Your task to perform on an android device: toggle pop-ups in chrome Image 0: 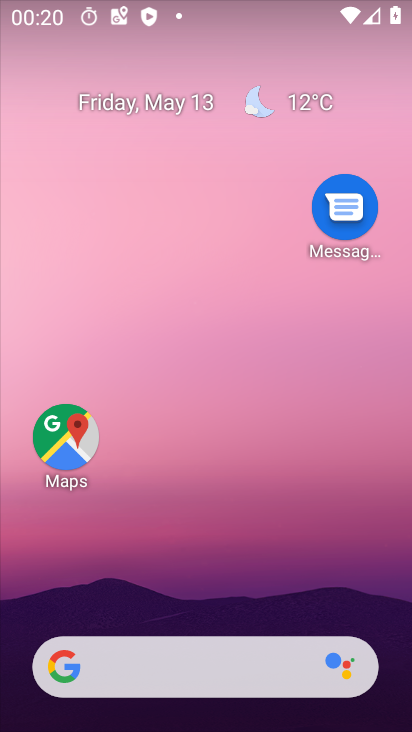
Step 0: press home button
Your task to perform on an android device: toggle pop-ups in chrome Image 1: 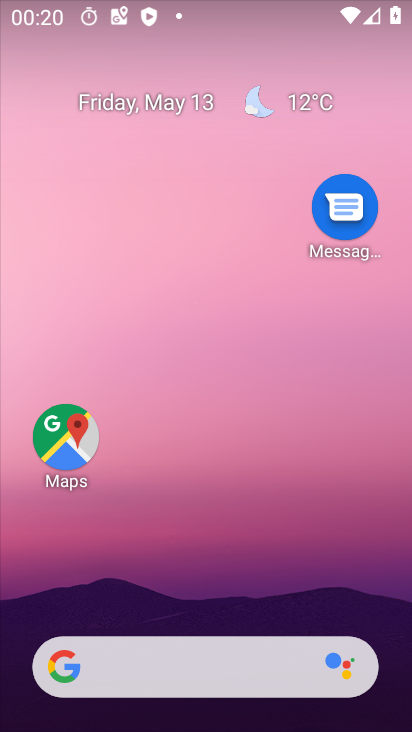
Step 1: drag from (164, 564) to (168, 127)
Your task to perform on an android device: toggle pop-ups in chrome Image 2: 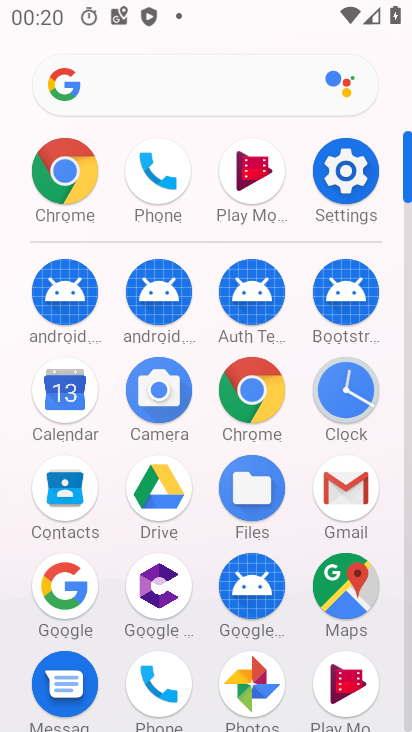
Step 2: click (243, 340)
Your task to perform on an android device: toggle pop-ups in chrome Image 3: 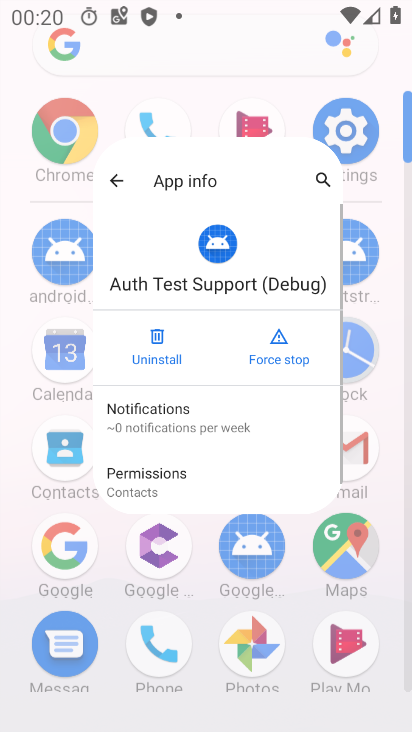
Step 3: press home button
Your task to perform on an android device: toggle pop-ups in chrome Image 4: 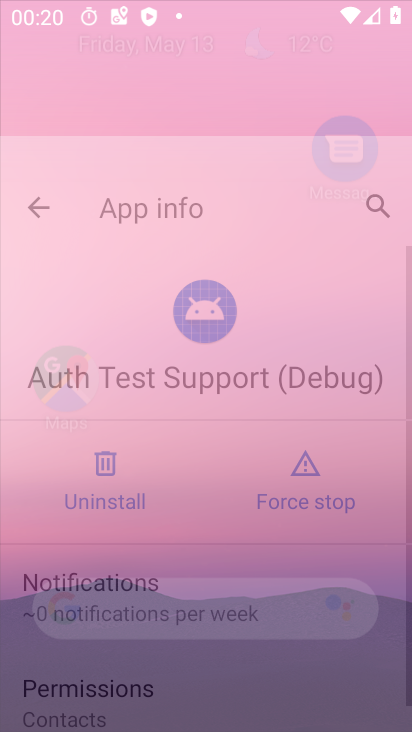
Step 4: press home button
Your task to perform on an android device: toggle pop-ups in chrome Image 5: 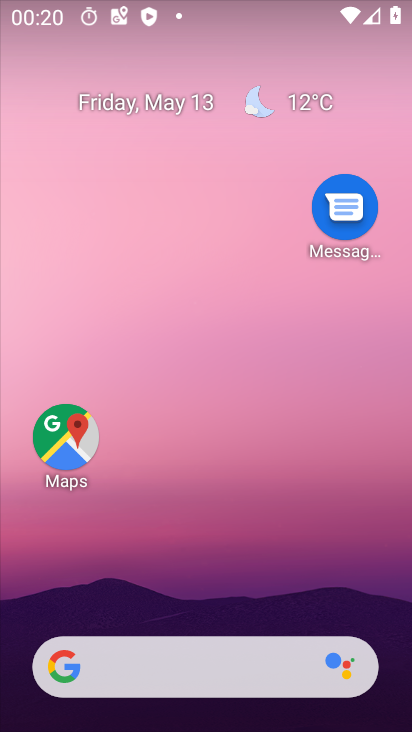
Step 5: drag from (242, 268) to (254, 1)
Your task to perform on an android device: toggle pop-ups in chrome Image 6: 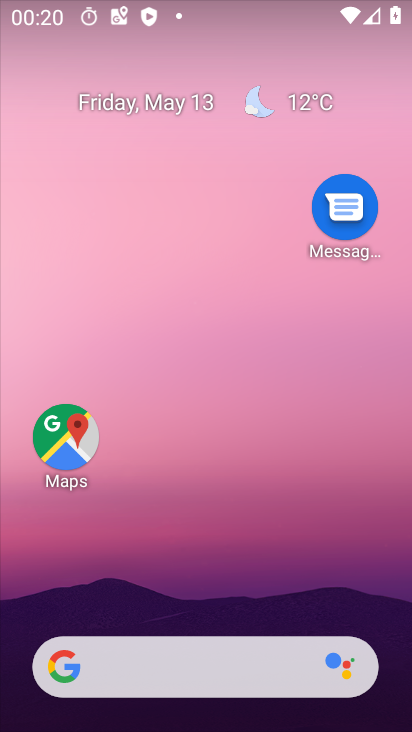
Step 6: drag from (275, 581) to (270, 31)
Your task to perform on an android device: toggle pop-ups in chrome Image 7: 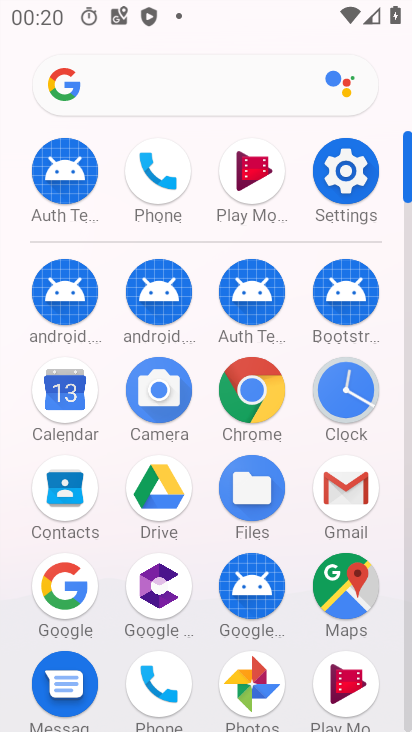
Step 7: click (242, 403)
Your task to perform on an android device: toggle pop-ups in chrome Image 8: 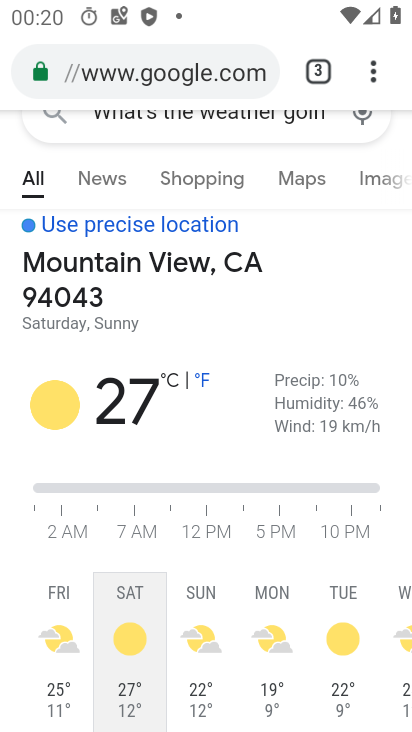
Step 8: drag from (378, 74) to (229, 572)
Your task to perform on an android device: toggle pop-ups in chrome Image 9: 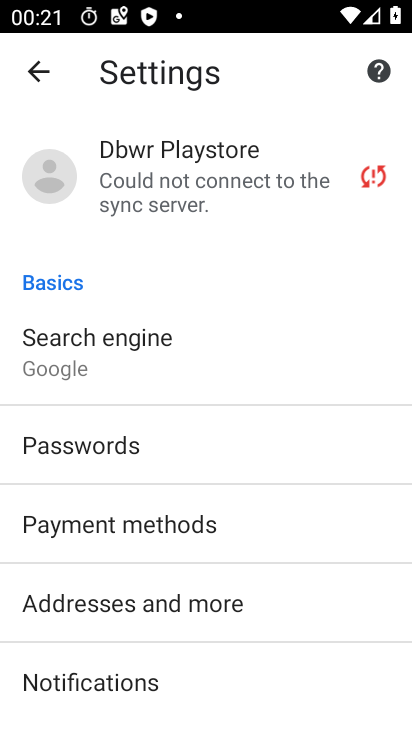
Step 9: drag from (195, 623) to (206, 72)
Your task to perform on an android device: toggle pop-ups in chrome Image 10: 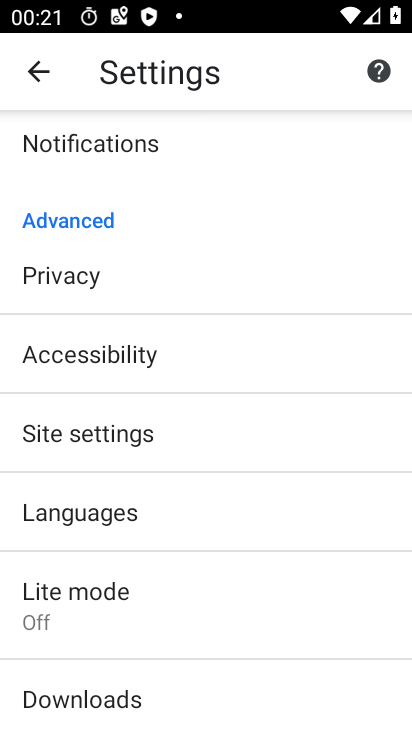
Step 10: click (103, 419)
Your task to perform on an android device: toggle pop-ups in chrome Image 11: 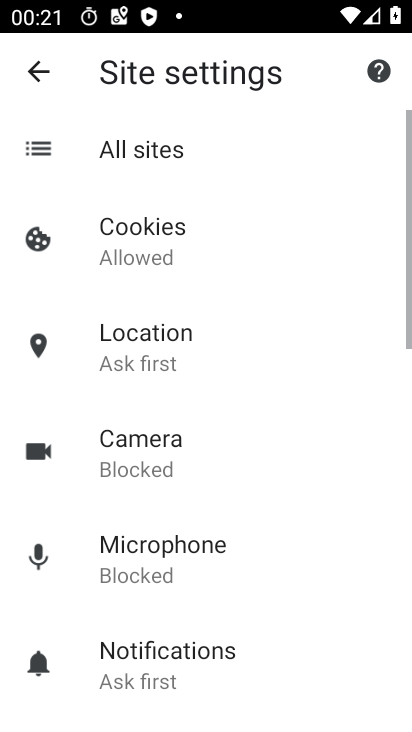
Step 11: drag from (207, 607) to (205, 155)
Your task to perform on an android device: toggle pop-ups in chrome Image 12: 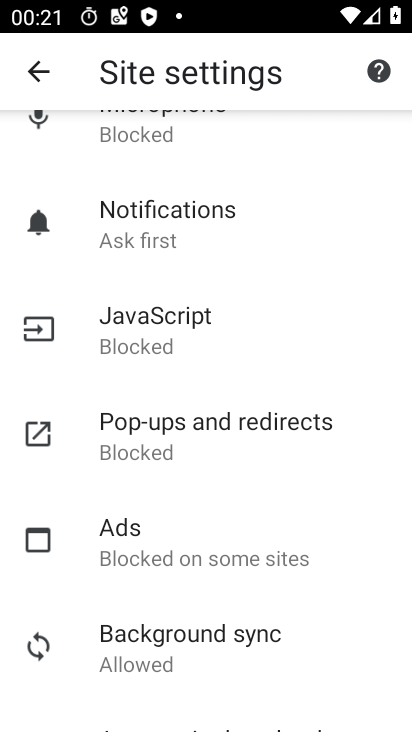
Step 12: click (208, 472)
Your task to perform on an android device: toggle pop-ups in chrome Image 13: 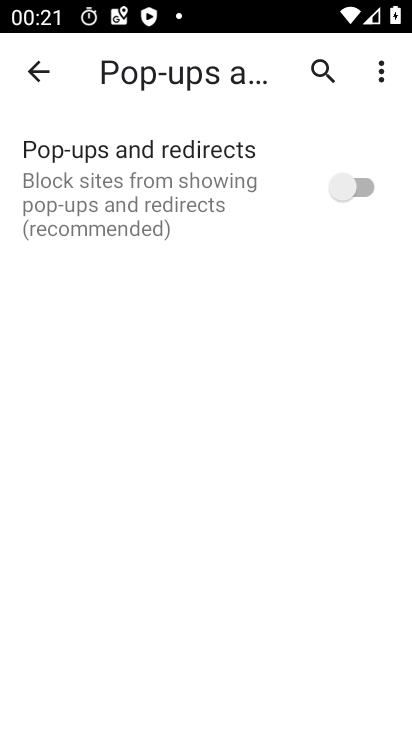
Step 13: task complete